Your task to perform on an android device: turn off smart reply in the gmail app Image 0: 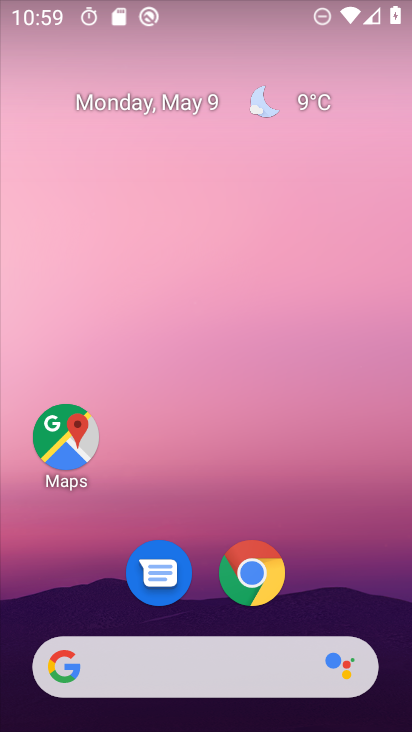
Step 0: drag from (314, 575) to (232, 31)
Your task to perform on an android device: turn off smart reply in the gmail app Image 1: 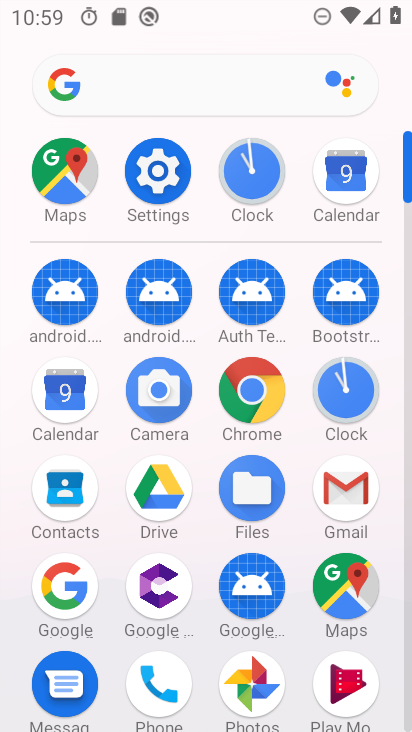
Step 1: click (355, 495)
Your task to perform on an android device: turn off smart reply in the gmail app Image 2: 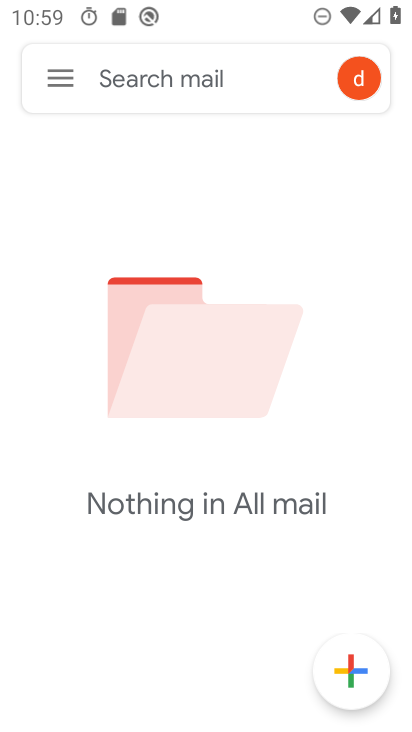
Step 2: click (54, 82)
Your task to perform on an android device: turn off smart reply in the gmail app Image 3: 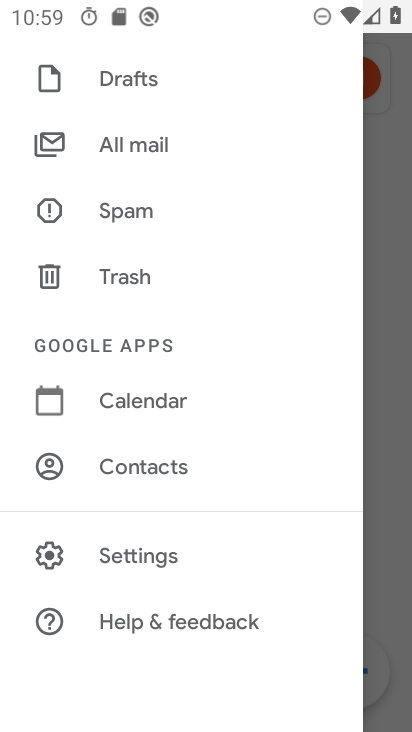
Step 3: click (146, 556)
Your task to perform on an android device: turn off smart reply in the gmail app Image 4: 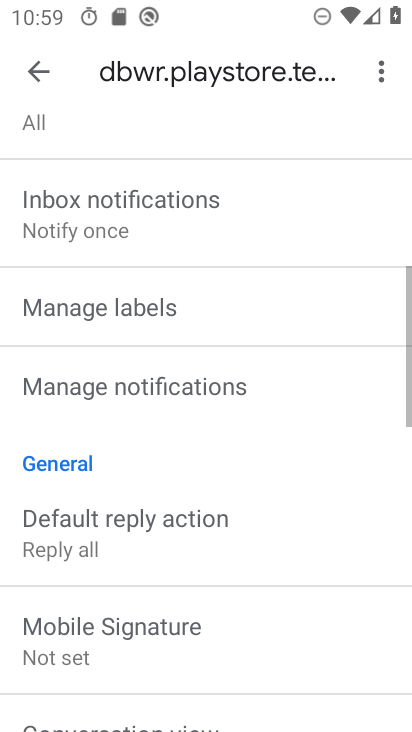
Step 4: task complete